Your task to perform on an android device: turn on improve location accuracy Image 0: 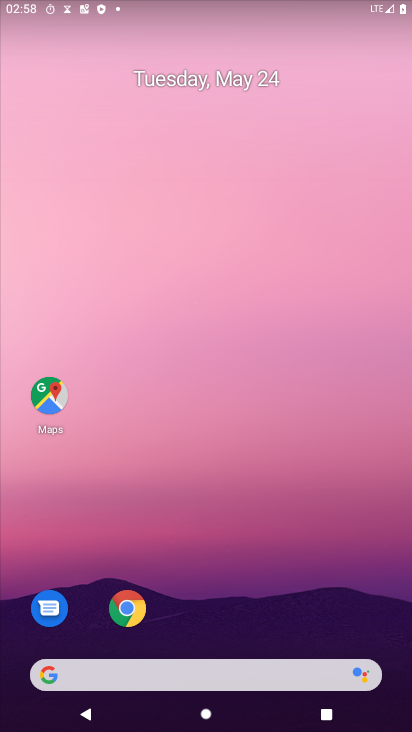
Step 0: drag from (212, 625) to (204, 200)
Your task to perform on an android device: turn on improve location accuracy Image 1: 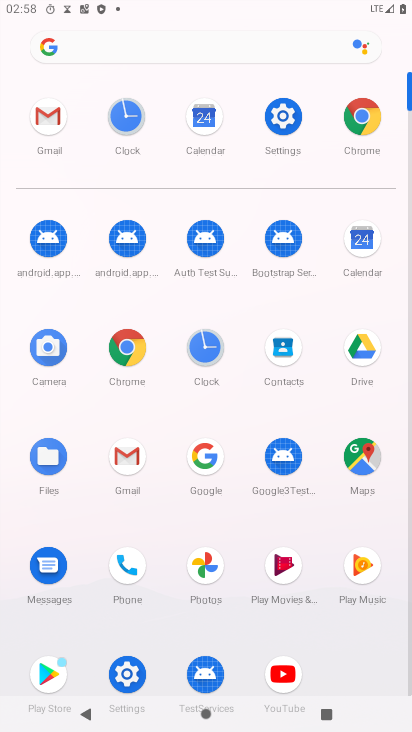
Step 1: click (286, 127)
Your task to perform on an android device: turn on improve location accuracy Image 2: 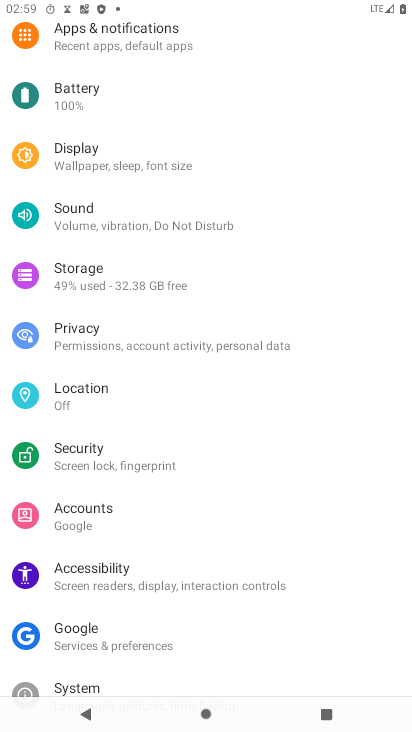
Step 2: click (113, 395)
Your task to perform on an android device: turn on improve location accuracy Image 3: 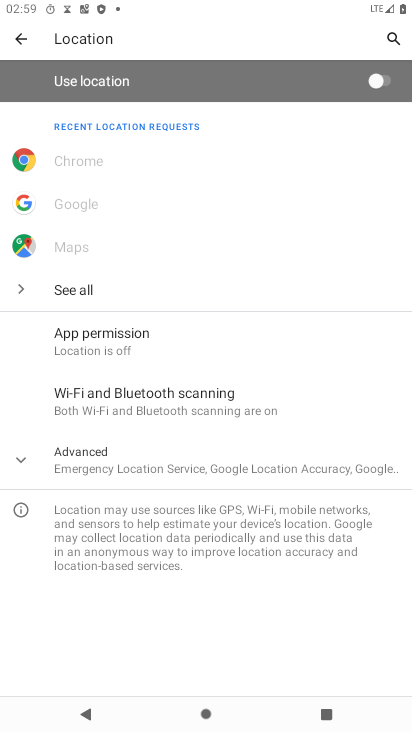
Step 3: click (140, 466)
Your task to perform on an android device: turn on improve location accuracy Image 4: 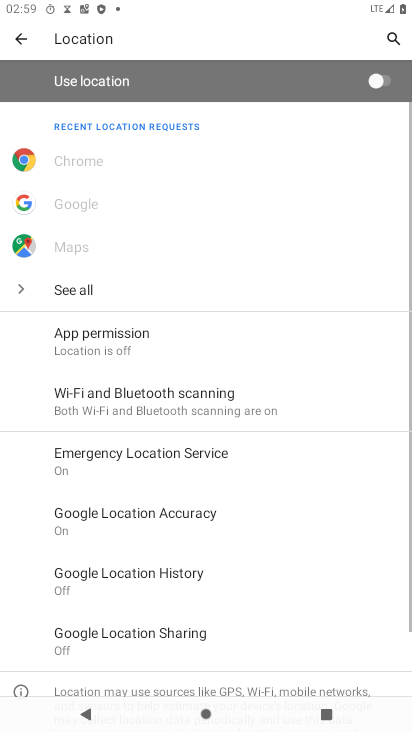
Step 4: click (140, 466)
Your task to perform on an android device: turn on improve location accuracy Image 5: 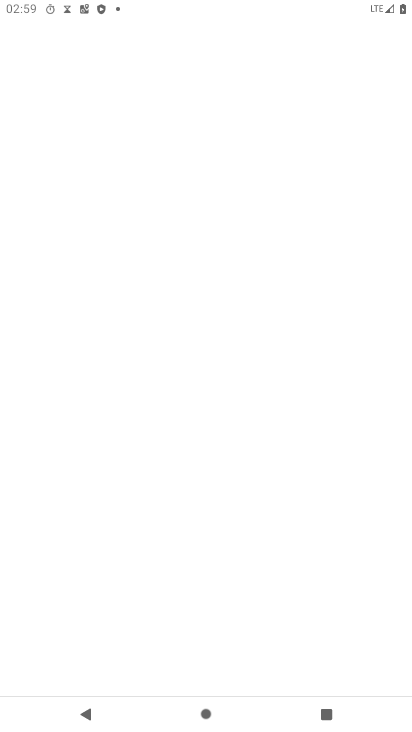
Step 5: drag from (140, 466) to (150, 308)
Your task to perform on an android device: turn on improve location accuracy Image 6: 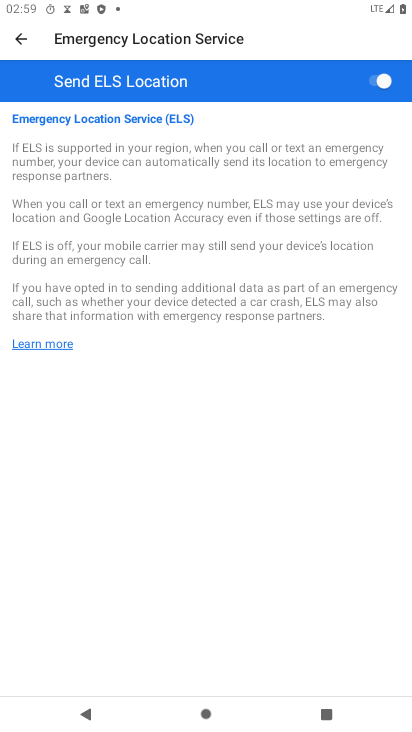
Step 6: press back button
Your task to perform on an android device: turn on improve location accuracy Image 7: 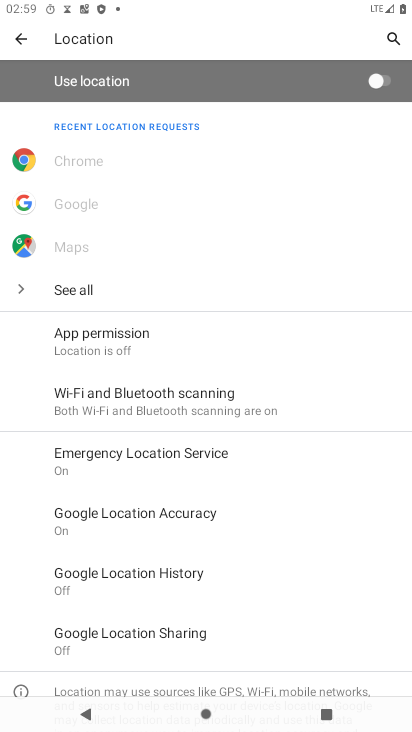
Step 7: click (293, 533)
Your task to perform on an android device: turn on improve location accuracy Image 8: 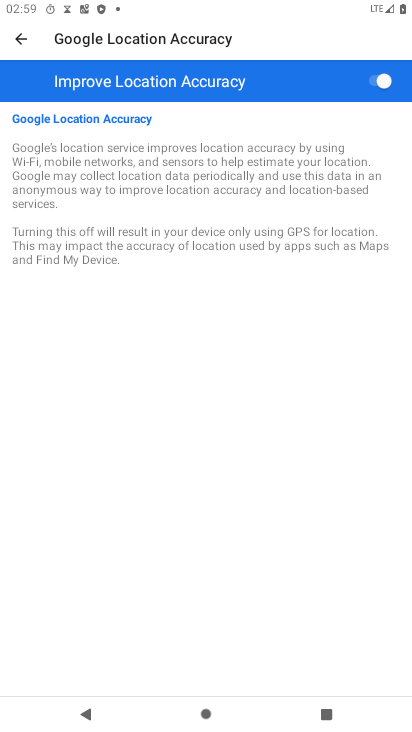
Step 8: task complete